Your task to perform on an android device: Open Amazon Image 0: 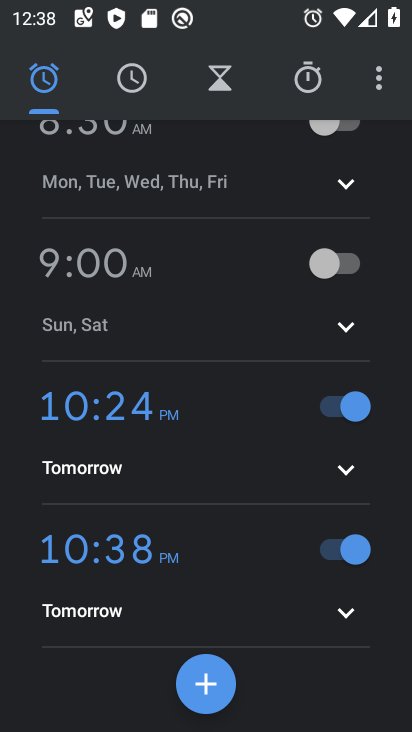
Step 0: press home button
Your task to perform on an android device: Open Amazon Image 1: 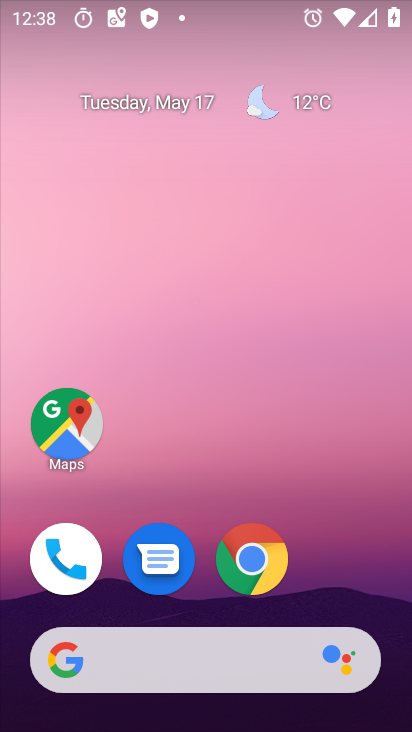
Step 1: click (249, 554)
Your task to perform on an android device: Open Amazon Image 2: 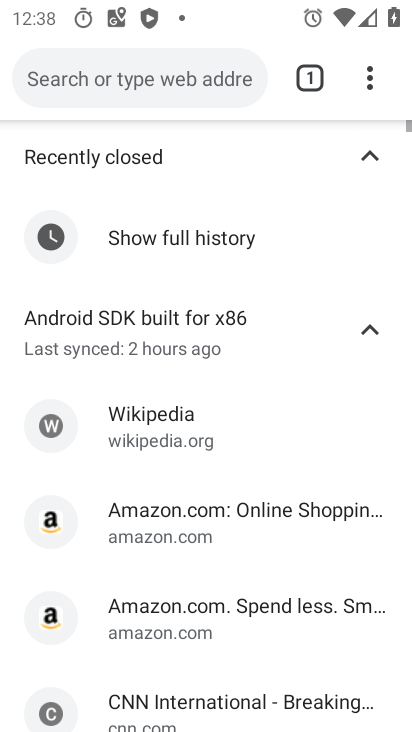
Step 2: click (203, 89)
Your task to perform on an android device: Open Amazon Image 3: 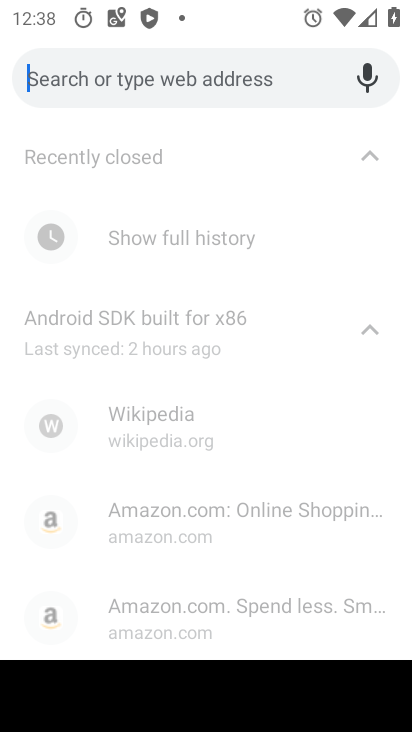
Step 3: click (190, 537)
Your task to perform on an android device: Open Amazon Image 4: 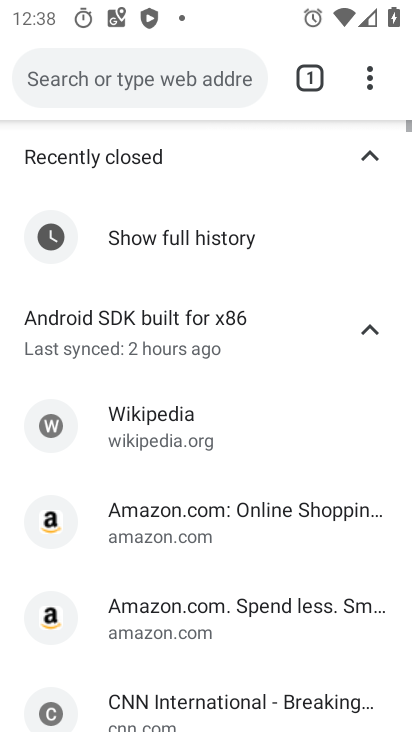
Step 4: click (190, 537)
Your task to perform on an android device: Open Amazon Image 5: 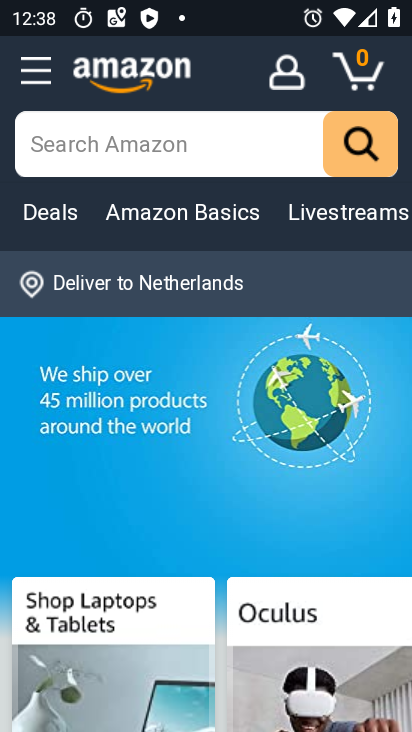
Step 5: task complete